Your task to perform on an android device: clear history in the chrome app Image 0: 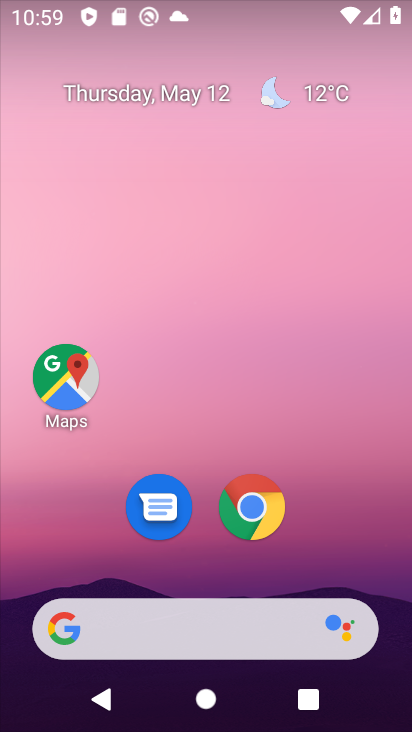
Step 0: click (240, 510)
Your task to perform on an android device: clear history in the chrome app Image 1: 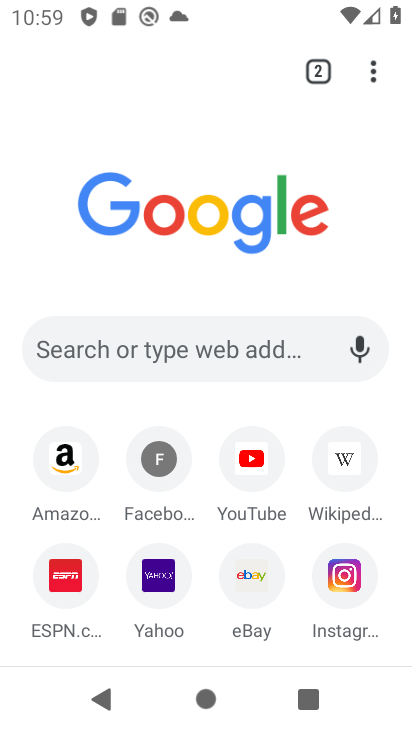
Step 1: click (377, 78)
Your task to perform on an android device: clear history in the chrome app Image 2: 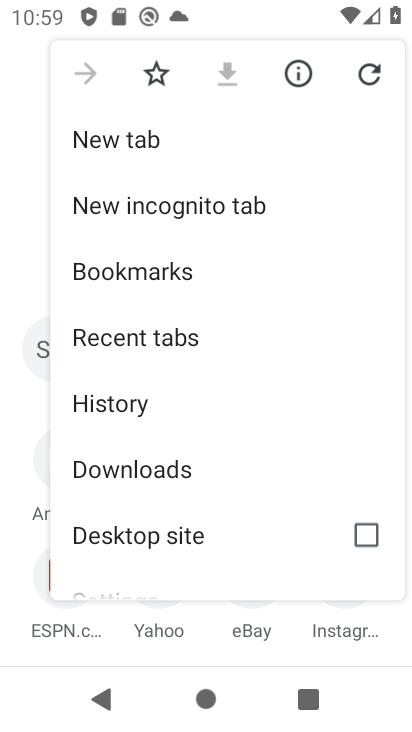
Step 2: drag from (165, 476) to (191, 194)
Your task to perform on an android device: clear history in the chrome app Image 3: 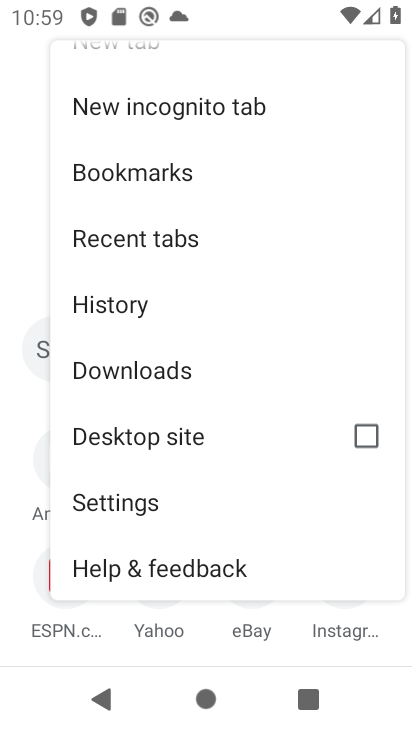
Step 3: click (127, 298)
Your task to perform on an android device: clear history in the chrome app Image 4: 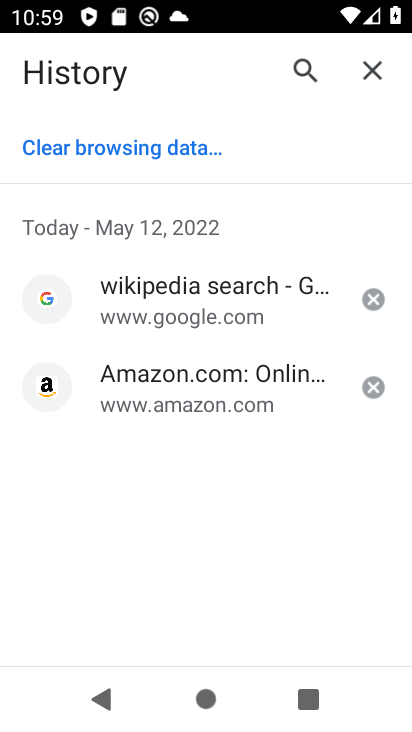
Step 4: click (129, 150)
Your task to perform on an android device: clear history in the chrome app Image 5: 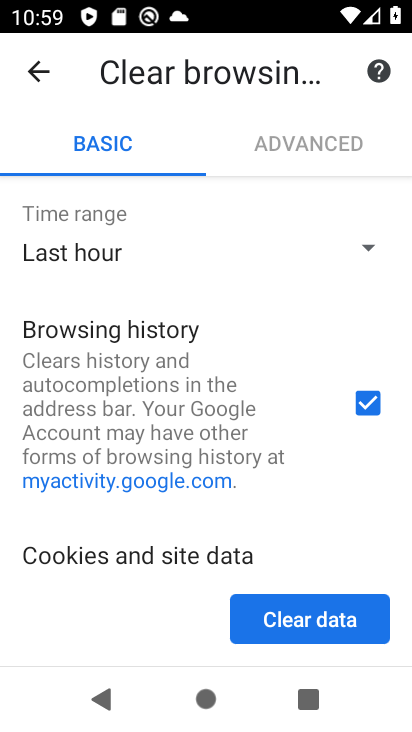
Step 5: drag from (241, 522) to (261, 250)
Your task to perform on an android device: clear history in the chrome app Image 6: 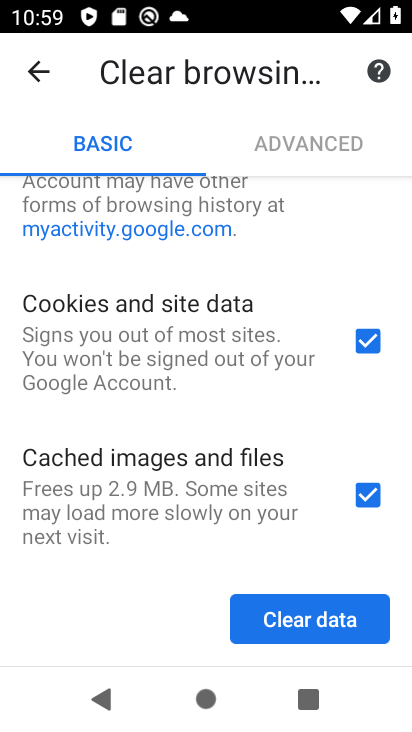
Step 6: click (313, 622)
Your task to perform on an android device: clear history in the chrome app Image 7: 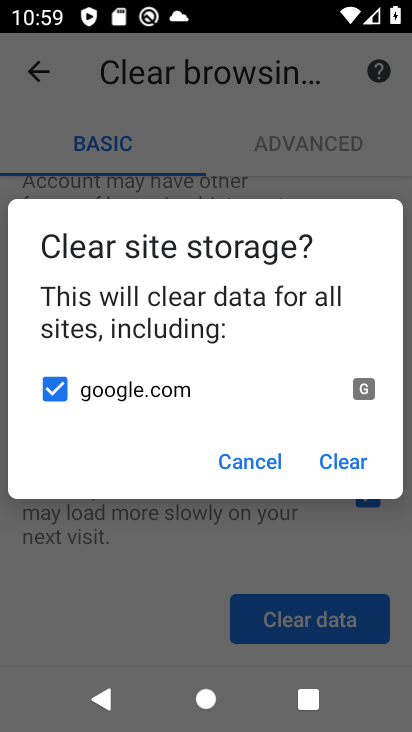
Step 7: click (320, 462)
Your task to perform on an android device: clear history in the chrome app Image 8: 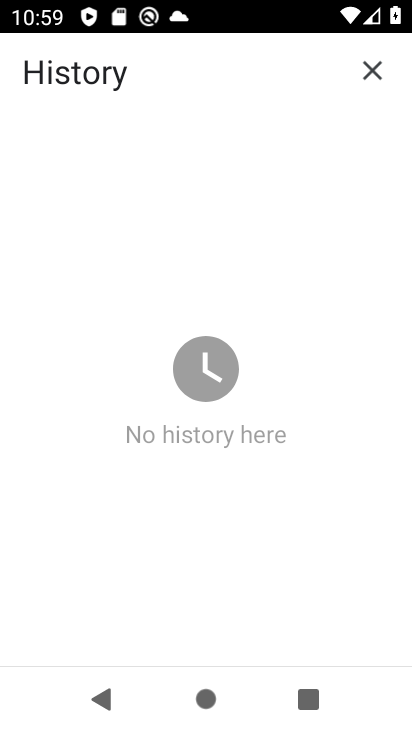
Step 8: task complete